Your task to perform on an android device: Open calendar and show me the first week of next month Image 0: 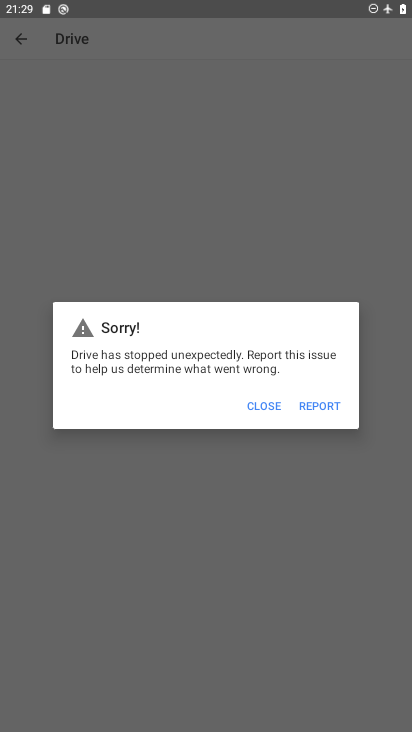
Step 0: press home button
Your task to perform on an android device: Open calendar and show me the first week of next month Image 1: 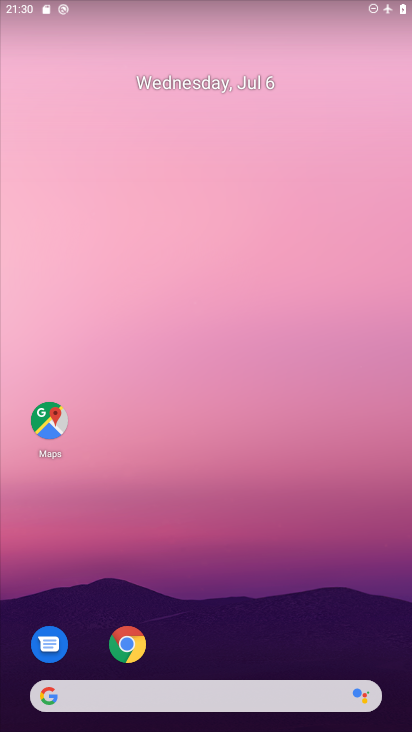
Step 1: drag from (191, 641) to (191, 210)
Your task to perform on an android device: Open calendar and show me the first week of next month Image 2: 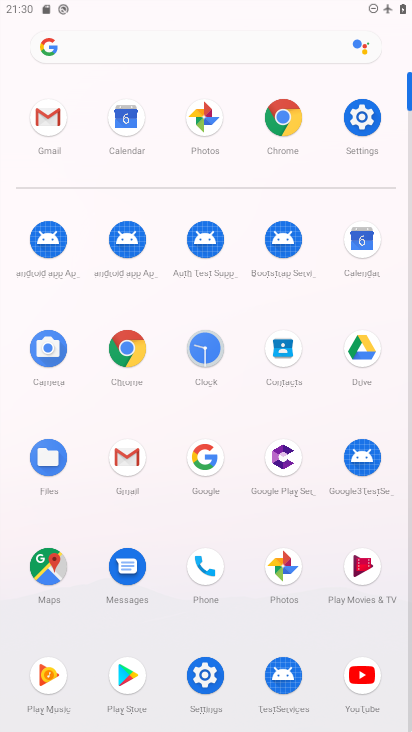
Step 2: click (120, 125)
Your task to perform on an android device: Open calendar and show me the first week of next month Image 3: 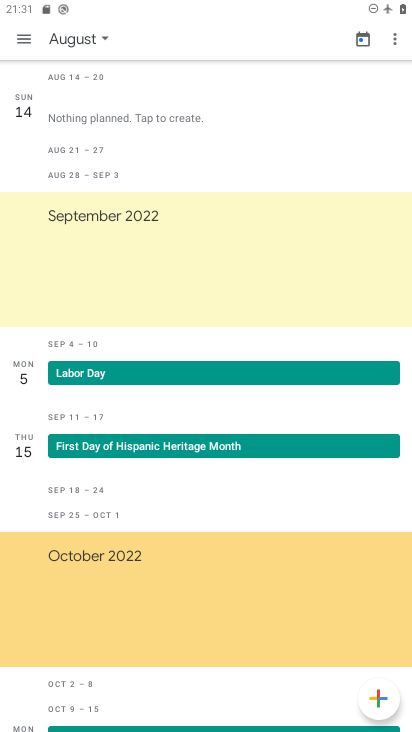
Step 3: task complete